Your task to perform on an android device: Open my contact list Image 0: 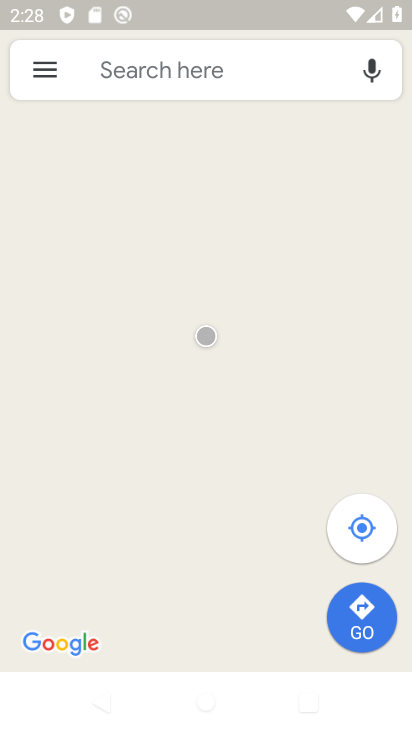
Step 0: press back button
Your task to perform on an android device: Open my contact list Image 1: 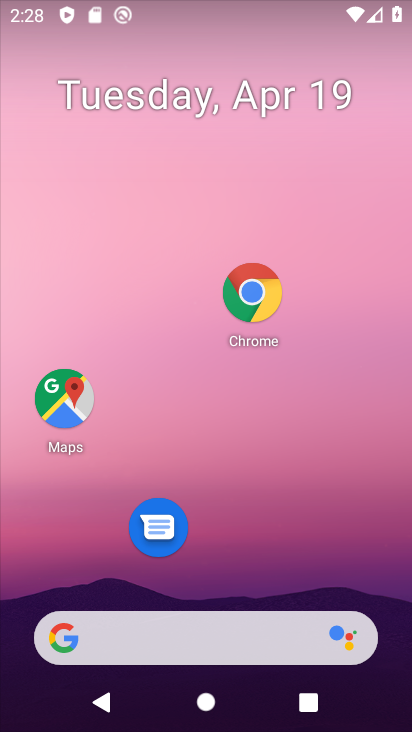
Step 1: drag from (205, 557) to (177, 244)
Your task to perform on an android device: Open my contact list Image 2: 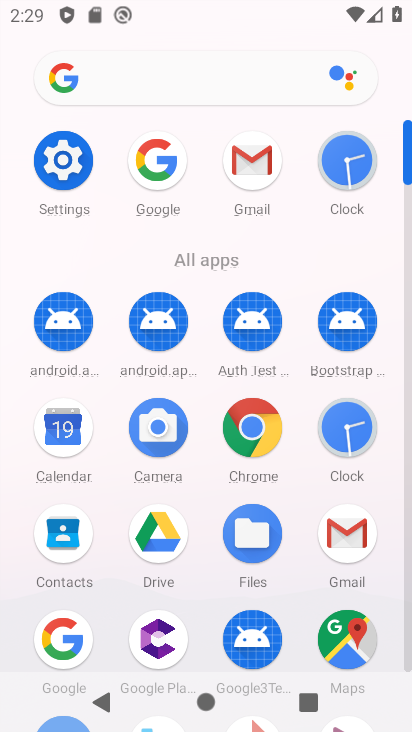
Step 2: click (51, 533)
Your task to perform on an android device: Open my contact list Image 3: 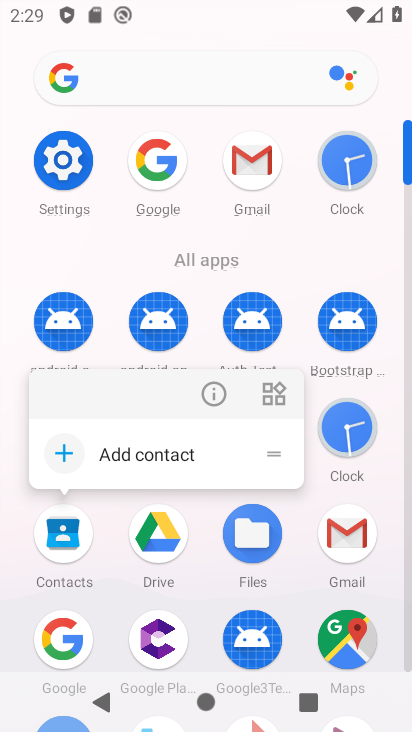
Step 3: click (56, 543)
Your task to perform on an android device: Open my contact list Image 4: 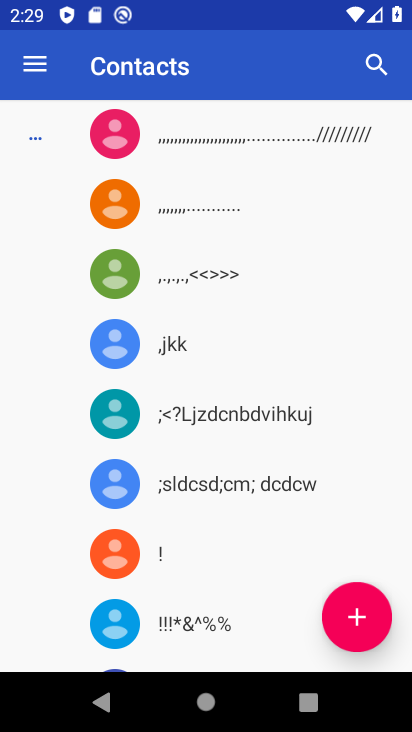
Step 4: task complete